Your task to perform on an android device: toggle improve location accuracy Image 0: 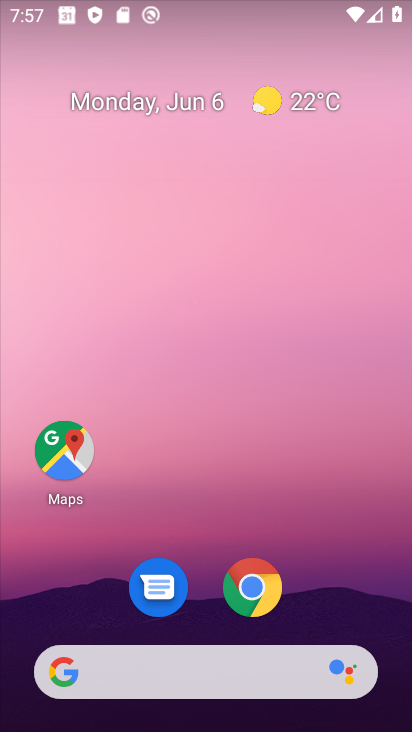
Step 0: drag from (222, 646) to (222, 370)
Your task to perform on an android device: toggle improve location accuracy Image 1: 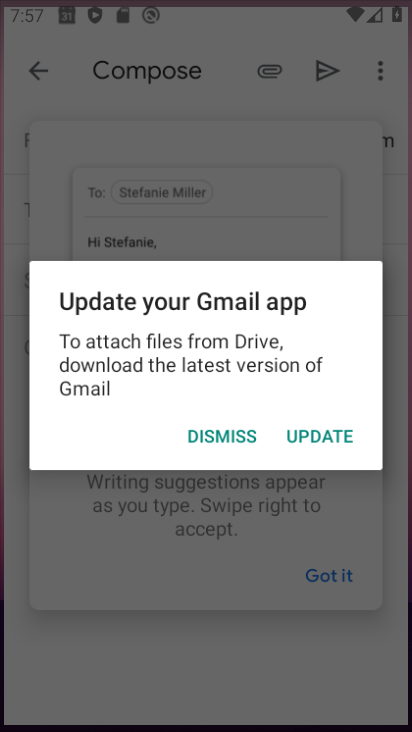
Step 1: drag from (174, 490) to (174, 250)
Your task to perform on an android device: toggle improve location accuracy Image 2: 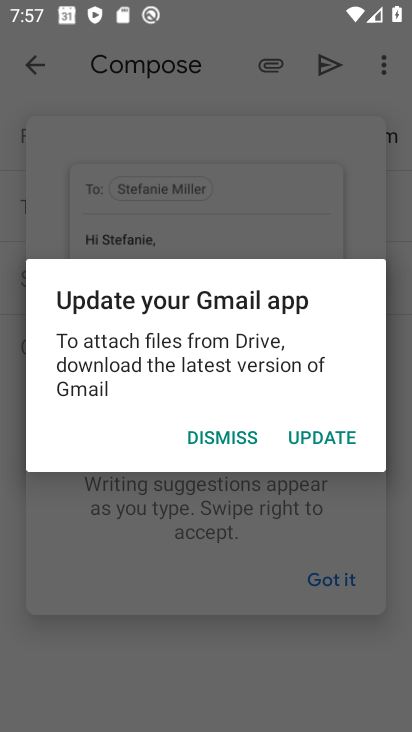
Step 2: press home button
Your task to perform on an android device: toggle improve location accuracy Image 3: 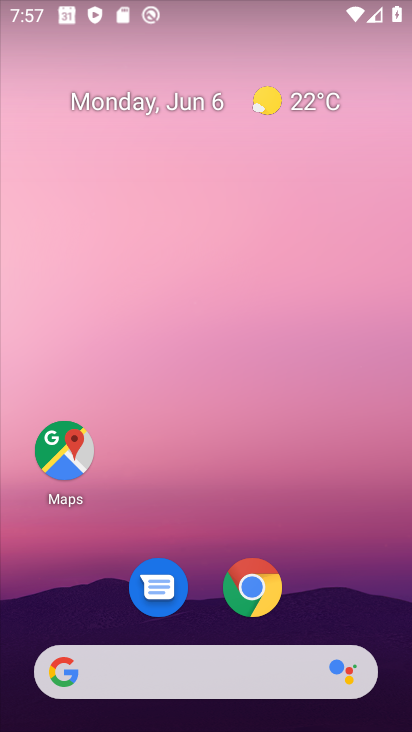
Step 3: drag from (212, 656) to (236, 149)
Your task to perform on an android device: toggle improve location accuracy Image 4: 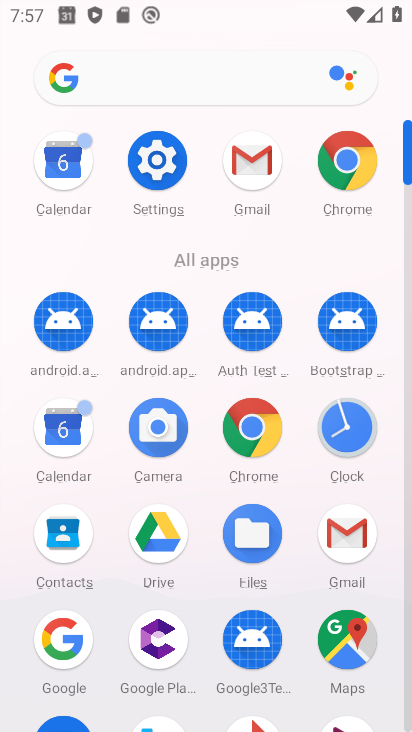
Step 4: click (140, 155)
Your task to perform on an android device: toggle improve location accuracy Image 5: 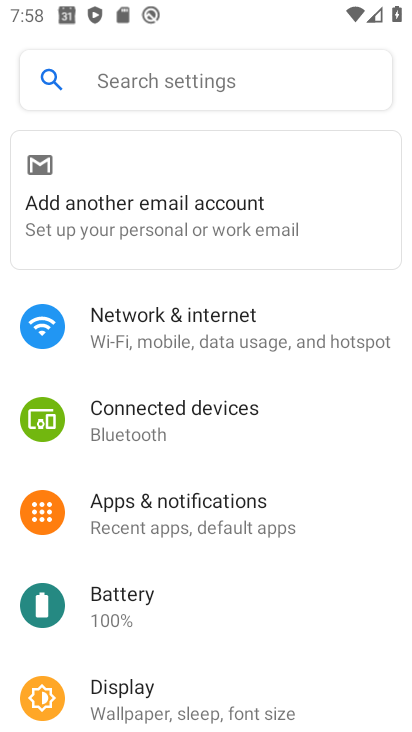
Step 5: drag from (161, 702) to (150, 371)
Your task to perform on an android device: toggle improve location accuracy Image 6: 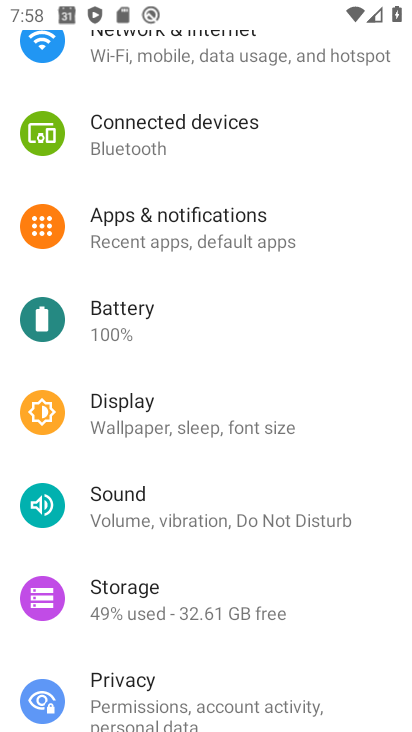
Step 6: drag from (178, 649) to (185, 335)
Your task to perform on an android device: toggle improve location accuracy Image 7: 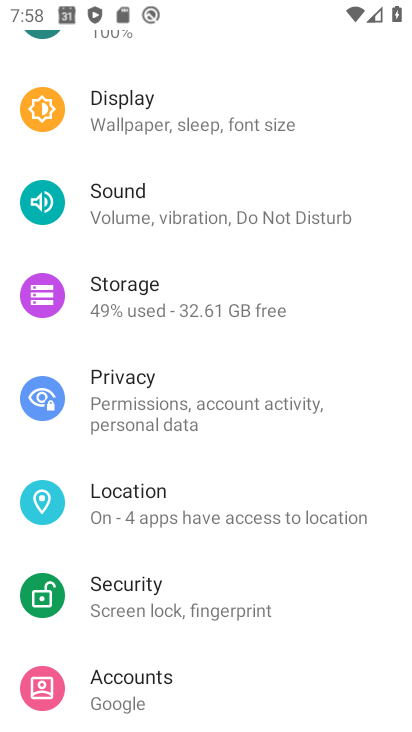
Step 7: click (179, 494)
Your task to perform on an android device: toggle improve location accuracy Image 8: 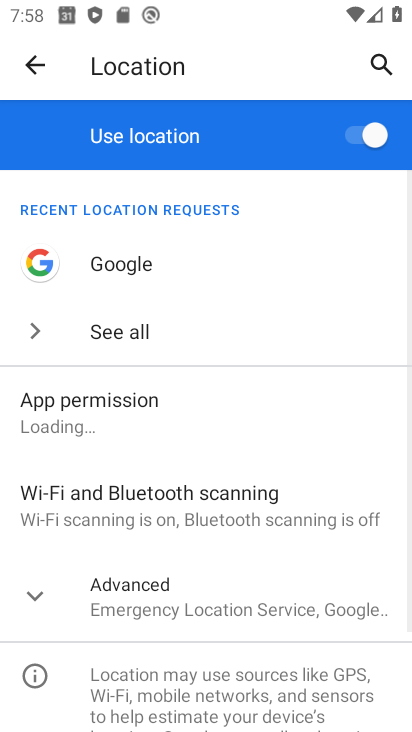
Step 8: click (182, 602)
Your task to perform on an android device: toggle improve location accuracy Image 9: 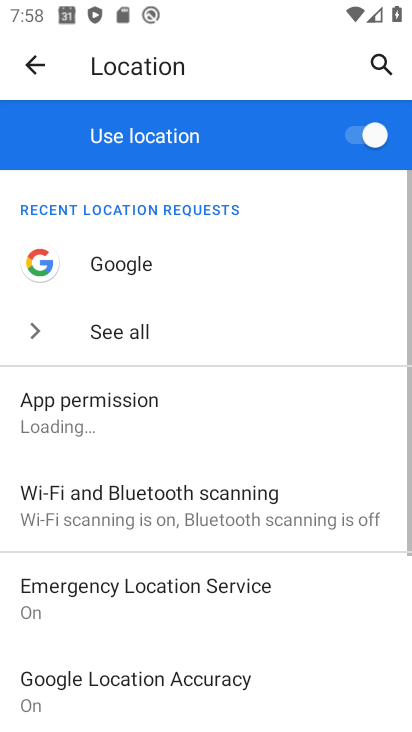
Step 9: drag from (291, 658) to (300, 291)
Your task to perform on an android device: toggle improve location accuracy Image 10: 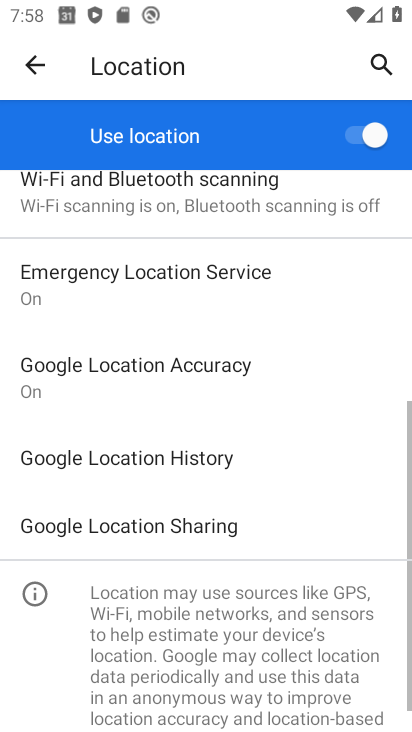
Step 10: click (201, 363)
Your task to perform on an android device: toggle improve location accuracy Image 11: 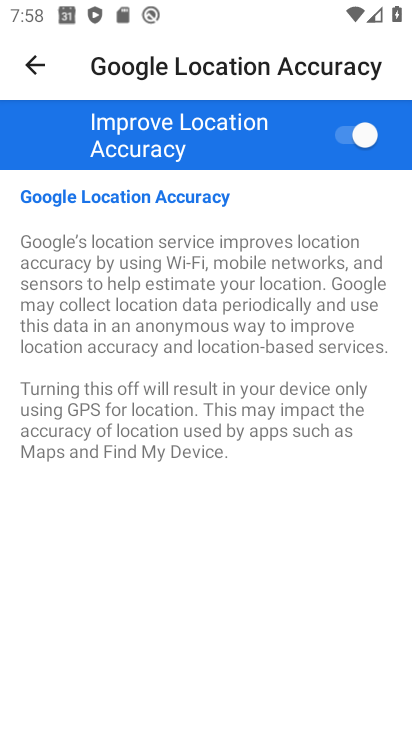
Step 11: click (352, 136)
Your task to perform on an android device: toggle improve location accuracy Image 12: 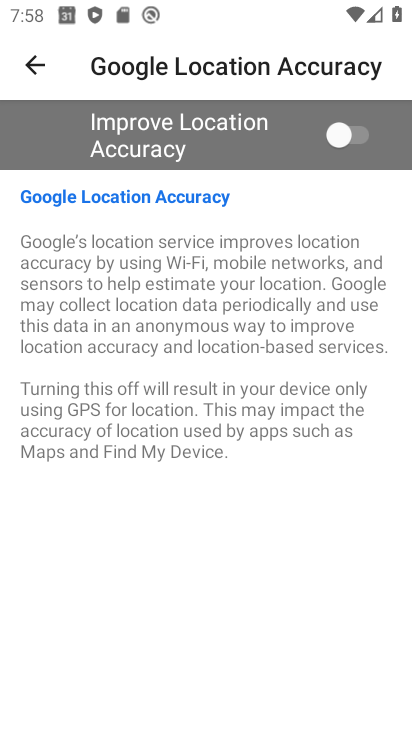
Step 12: task complete